Your task to perform on an android device: open device folders in google photos Image 0: 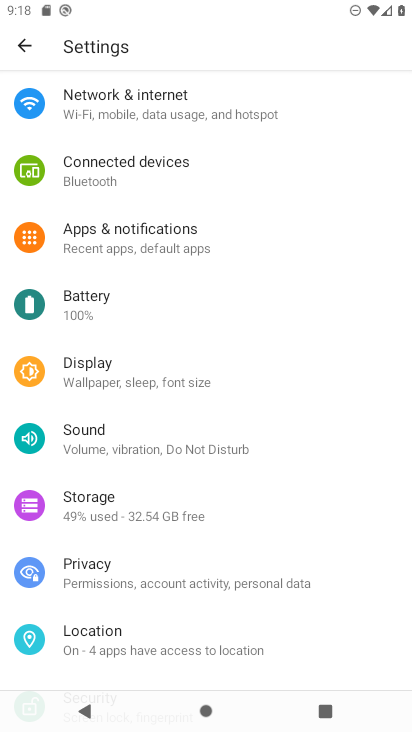
Step 0: press home button
Your task to perform on an android device: open device folders in google photos Image 1: 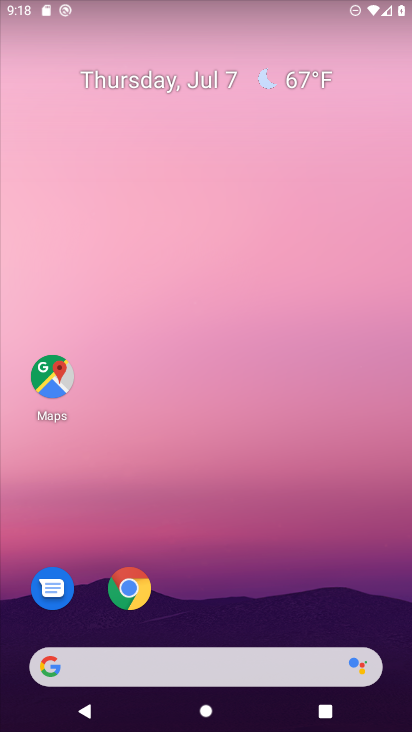
Step 1: drag from (231, 614) to (193, 152)
Your task to perform on an android device: open device folders in google photos Image 2: 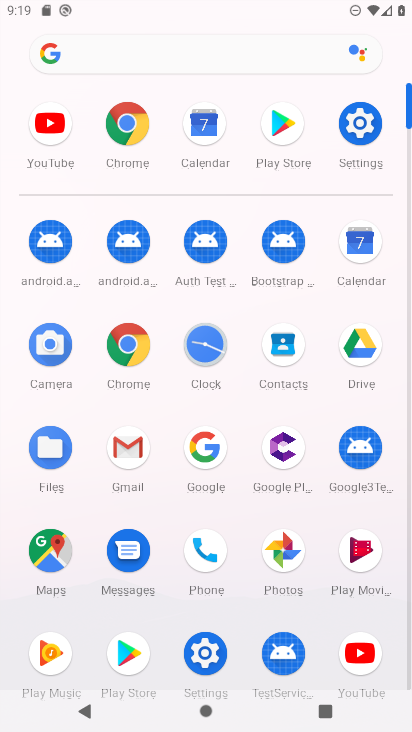
Step 2: click (284, 549)
Your task to perform on an android device: open device folders in google photos Image 3: 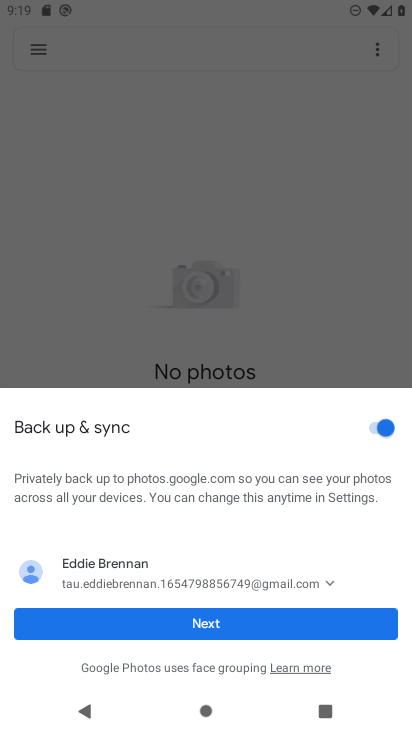
Step 3: click (213, 626)
Your task to perform on an android device: open device folders in google photos Image 4: 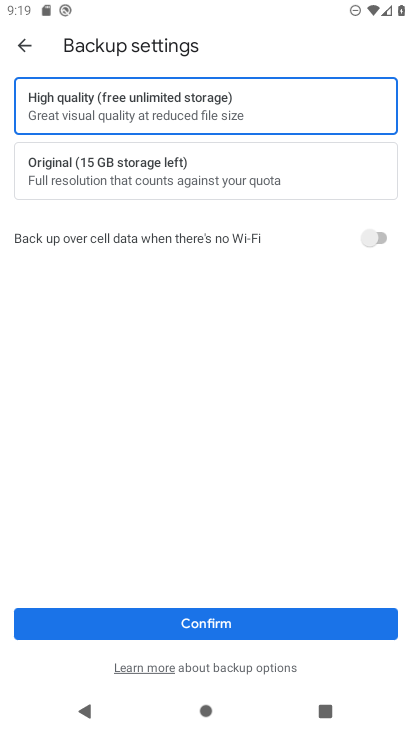
Step 4: click (213, 626)
Your task to perform on an android device: open device folders in google photos Image 5: 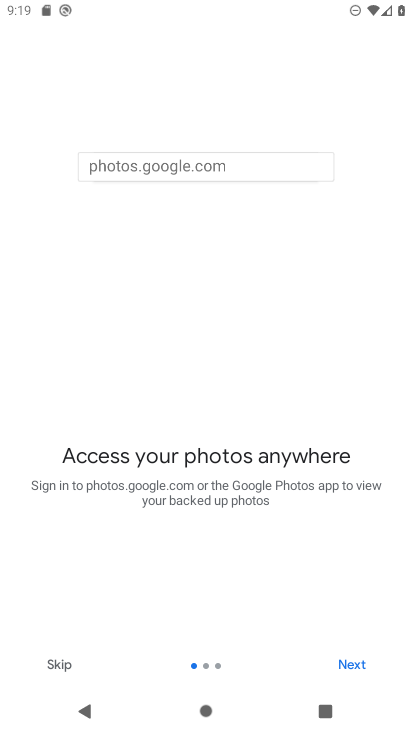
Step 5: click (60, 671)
Your task to perform on an android device: open device folders in google photos Image 6: 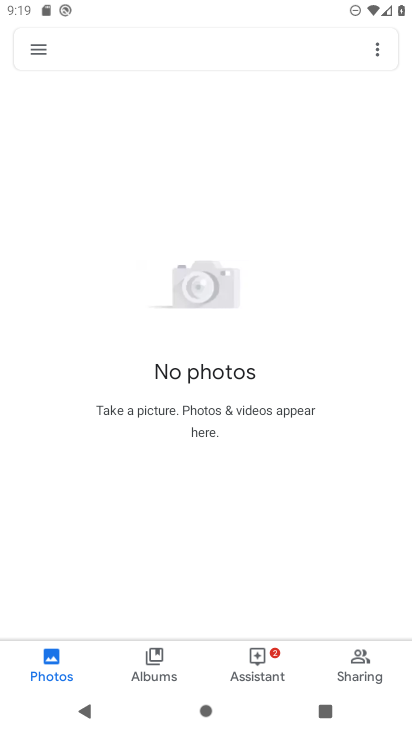
Step 6: click (36, 51)
Your task to perform on an android device: open device folders in google photos Image 7: 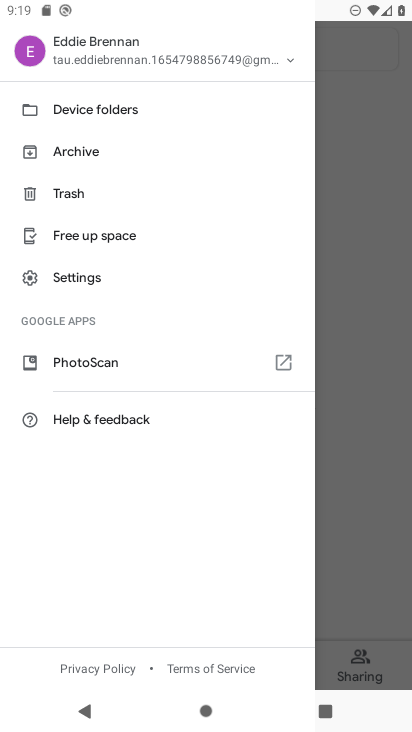
Step 7: click (102, 109)
Your task to perform on an android device: open device folders in google photos Image 8: 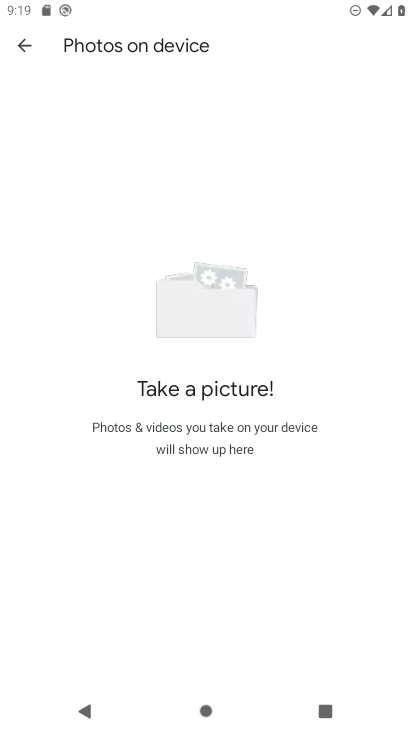
Step 8: task complete